Your task to perform on an android device: search for starred emails in the gmail app Image 0: 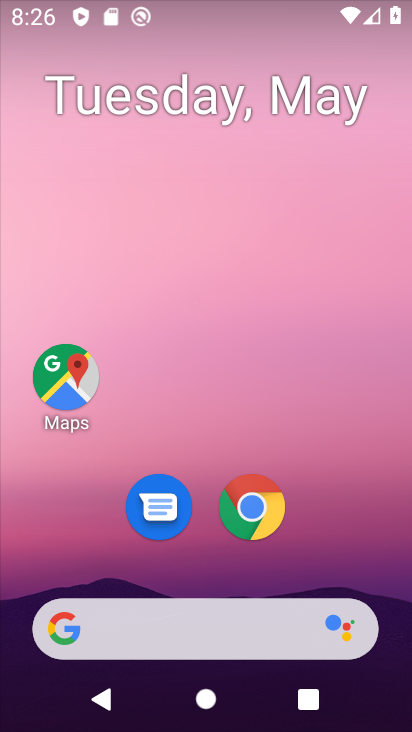
Step 0: drag from (398, 620) to (279, 129)
Your task to perform on an android device: search for starred emails in the gmail app Image 1: 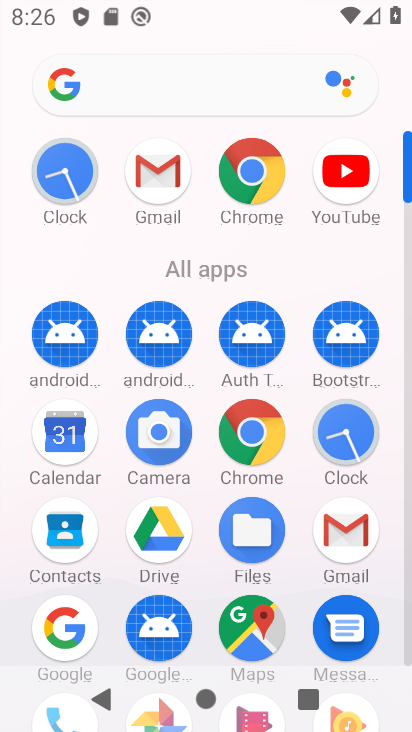
Step 1: click (165, 197)
Your task to perform on an android device: search for starred emails in the gmail app Image 2: 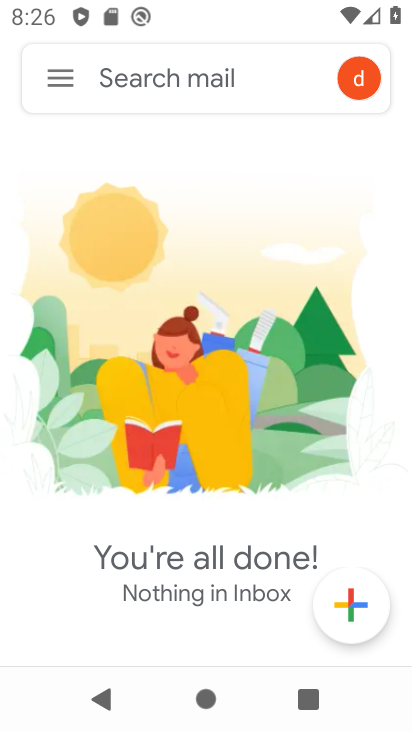
Step 2: click (62, 88)
Your task to perform on an android device: search for starred emails in the gmail app Image 3: 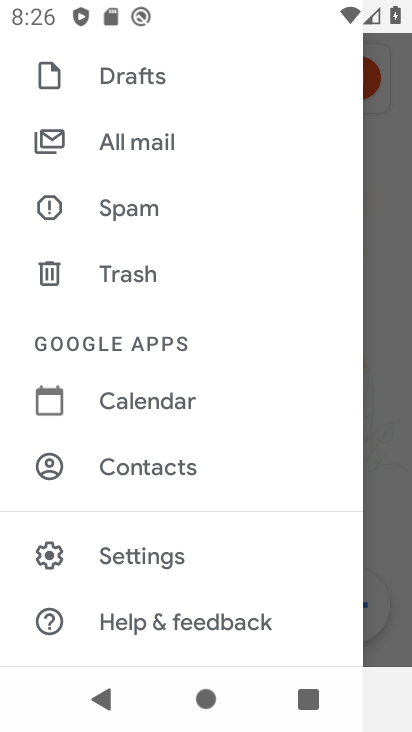
Step 3: drag from (131, 106) to (147, 470)
Your task to perform on an android device: search for starred emails in the gmail app Image 4: 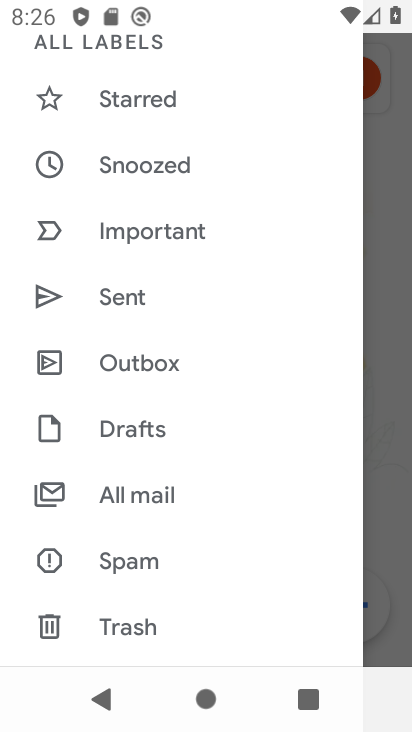
Step 4: click (145, 111)
Your task to perform on an android device: search for starred emails in the gmail app Image 5: 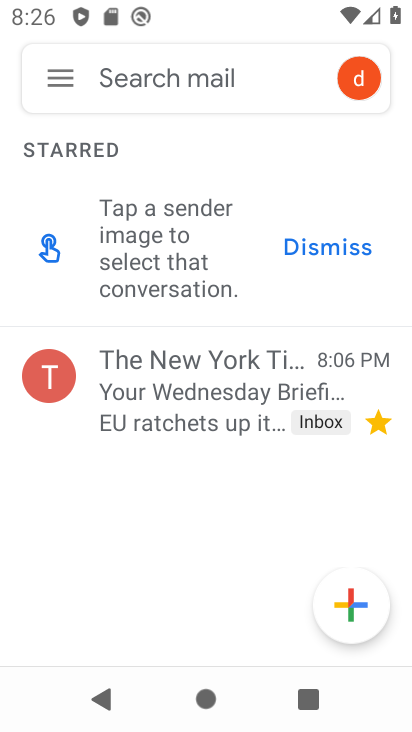
Step 5: task complete